Your task to perform on an android device: Turn on the flashlight Image 0: 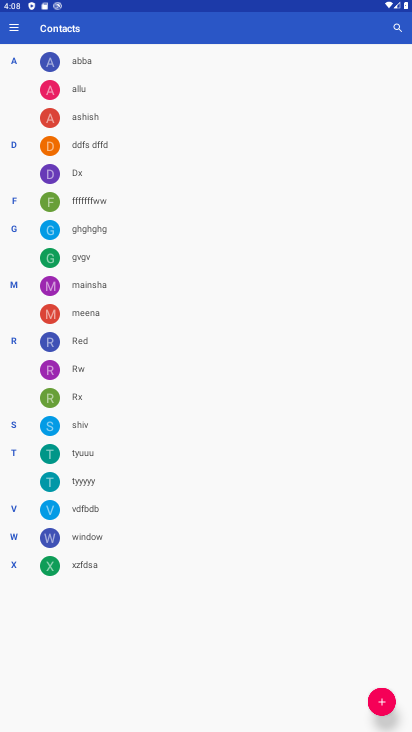
Step 0: press home button
Your task to perform on an android device: Turn on the flashlight Image 1: 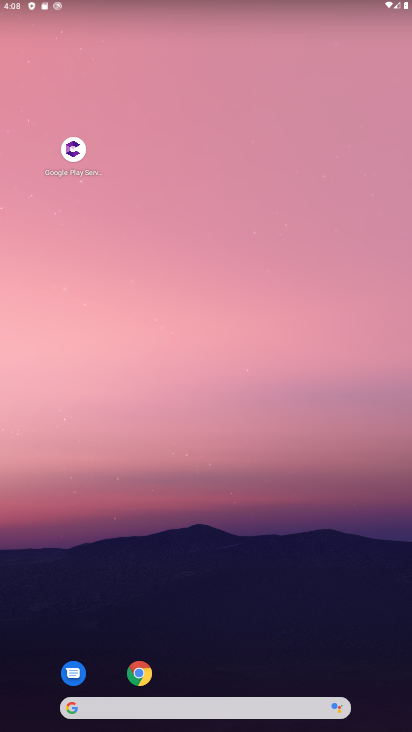
Step 1: drag from (348, 6) to (345, 386)
Your task to perform on an android device: Turn on the flashlight Image 2: 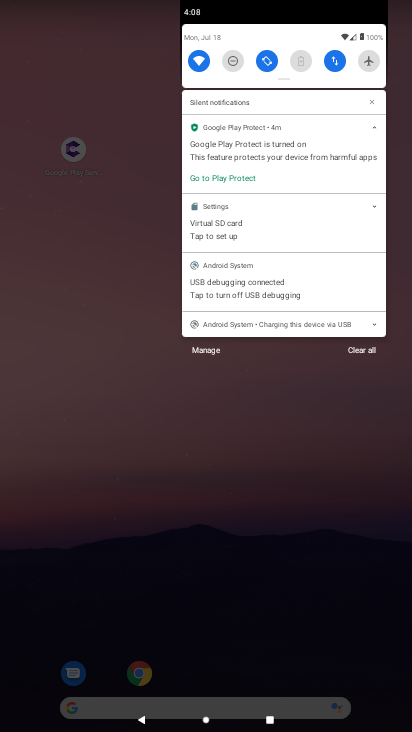
Step 2: drag from (283, 66) to (299, 510)
Your task to perform on an android device: Turn on the flashlight Image 3: 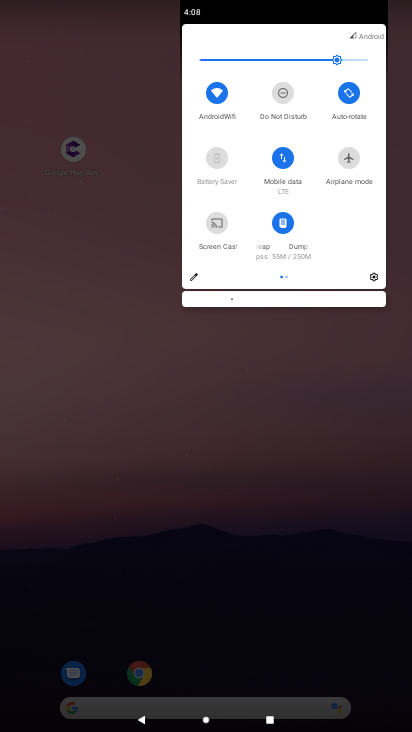
Step 3: click (196, 276)
Your task to perform on an android device: Turn on the flashlight Image 4: 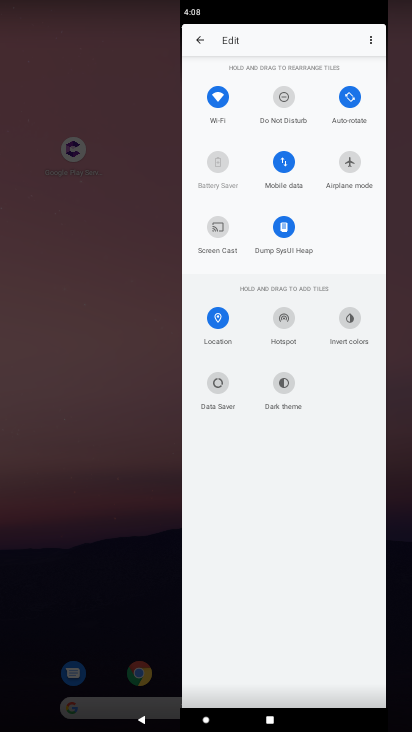
Step 4: task complete